Your task to perform on an android device: turn on data saver in the chrome app Image 0: 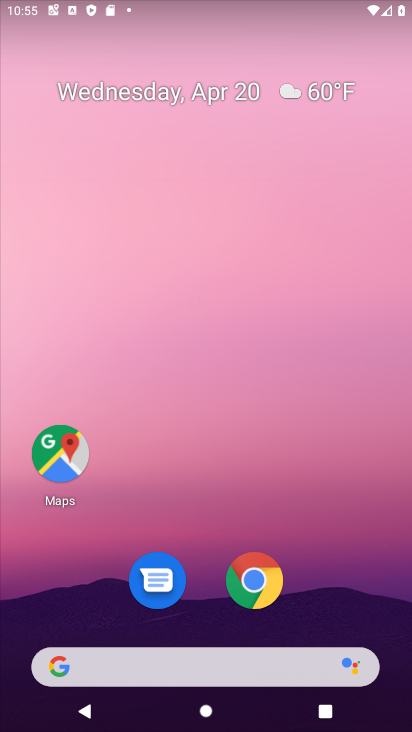
Step 0: click (252, 592)
Your task to perform on an android device: turn on data saver in the chrome app Image 1: 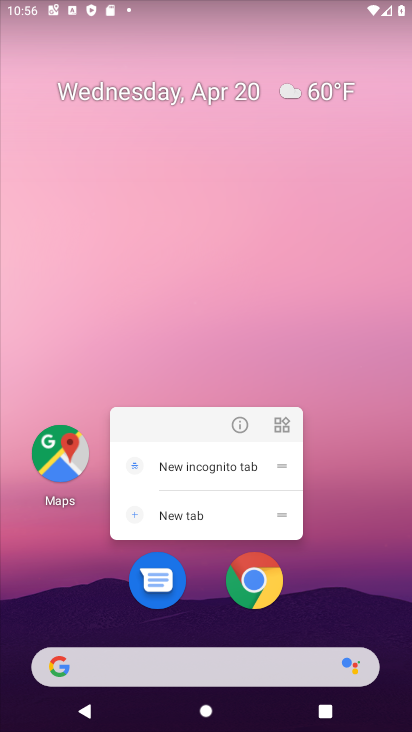
Step 1: click (257, 584)
Your task to perform on an android device: turn on data saver in the chrome app Image 2: 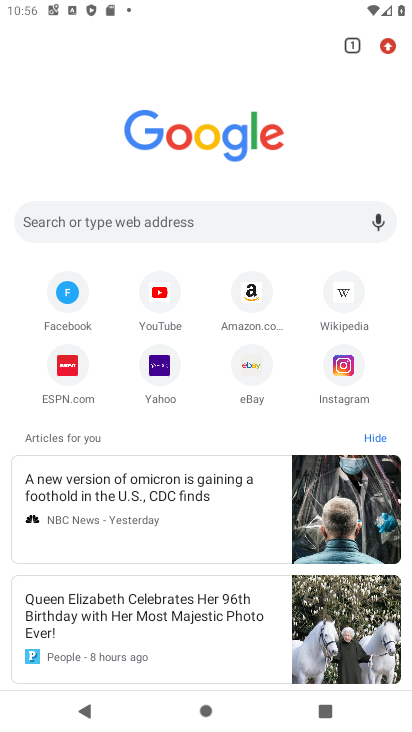
Step 2: drag from (387, 44) to (258, 430)
Your task to perform on an android device: turn on data saver in the chrome app Image 3: 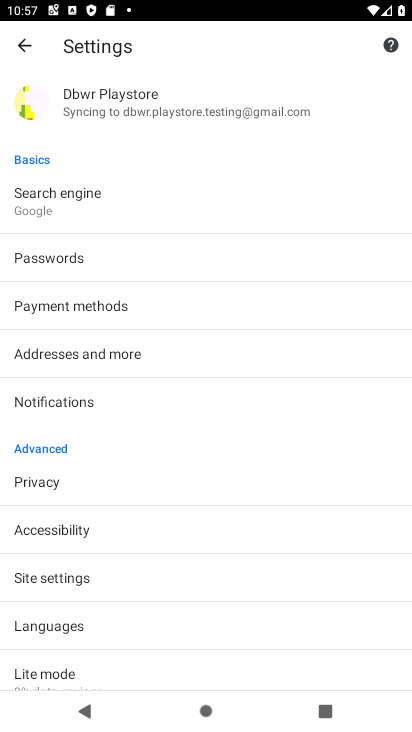
Step 3: click (79, 665)
Your task to perform on an android device: turn on data saver in the chrome app Image 4: 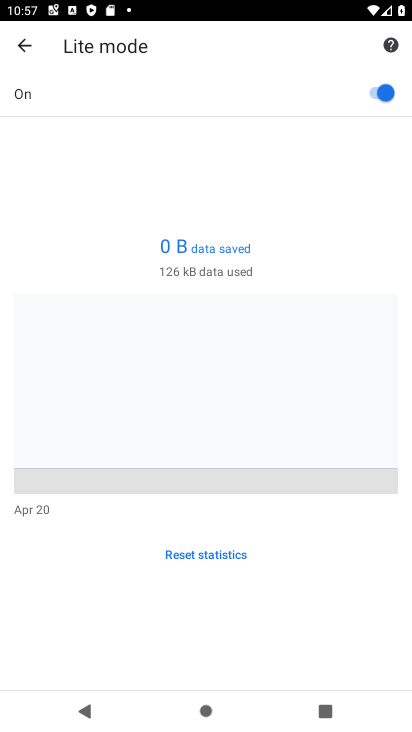
Step 4: task complete